Your task to perform on an android device: Go to sound settings Image 0: 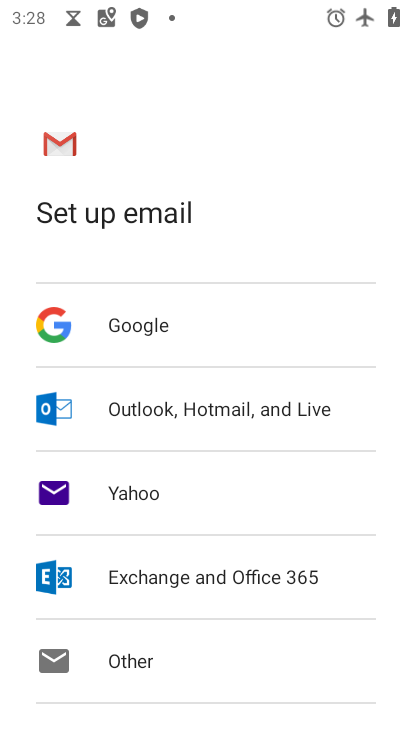
Step 0: press home button
Your task to perform on an android device: Go to sound settings Image 1: 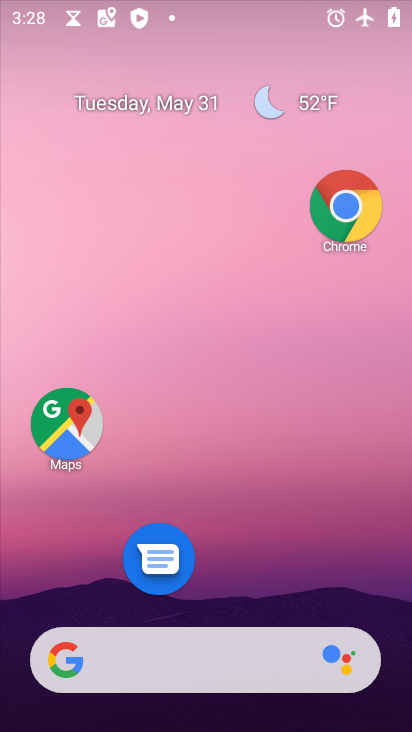
Step 1: drag from (29, 600) to (222, 117)
Your task to perform on an android device: Go to sound settings Image 2: 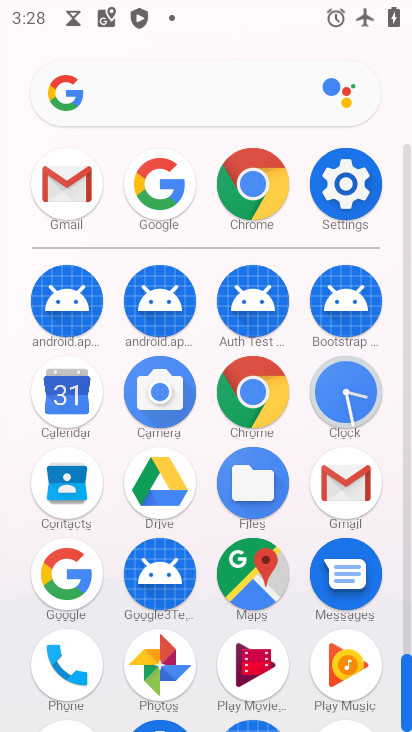
Step 2: click (366, 184)
Your task to perform on an android device: Go to sound settings Image 3: 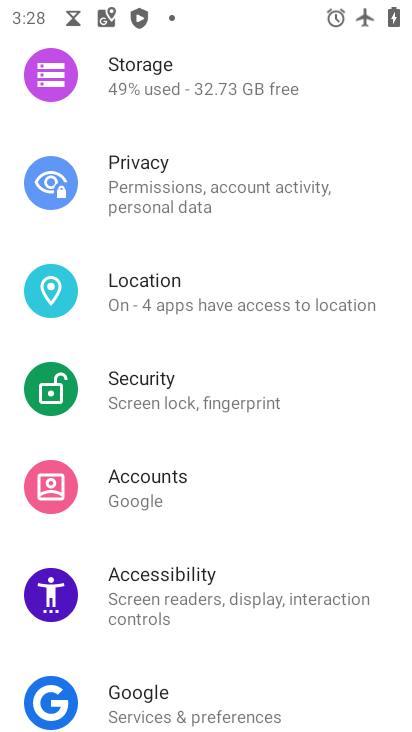
Step 3: drag from (172, 161) to (88, 722)
Your task to perform on an android device: Go to sound settings Image 4: 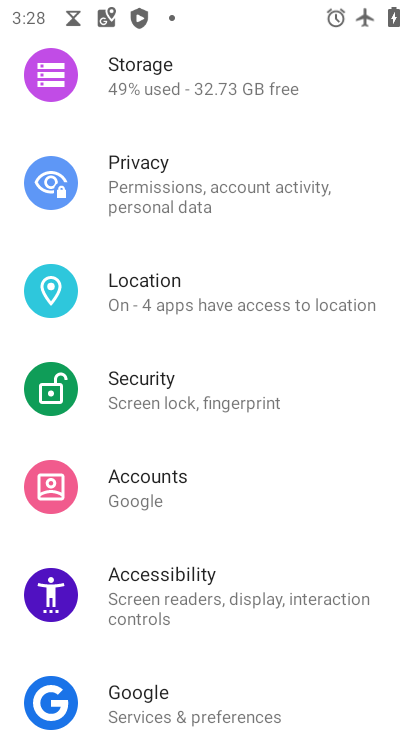
Step 4: drag from (34, 189) to (199, 662)
Your task to perform on an android device: Go to sound settings Image 5: 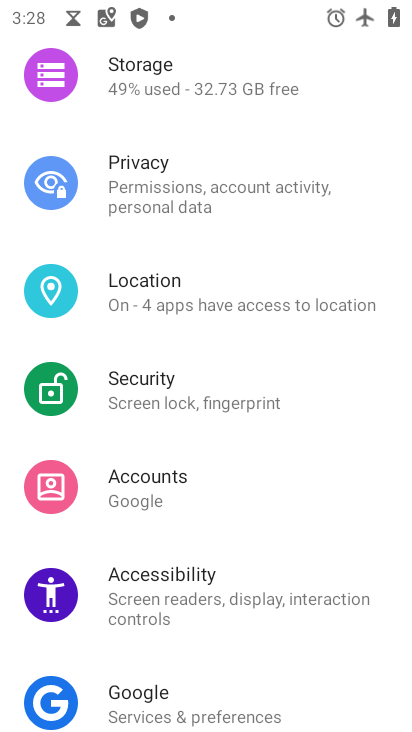
Step 5: drag from (109, 149) to (210, 698)
Your task to perform on an android device: Go to sound settings Image 6: 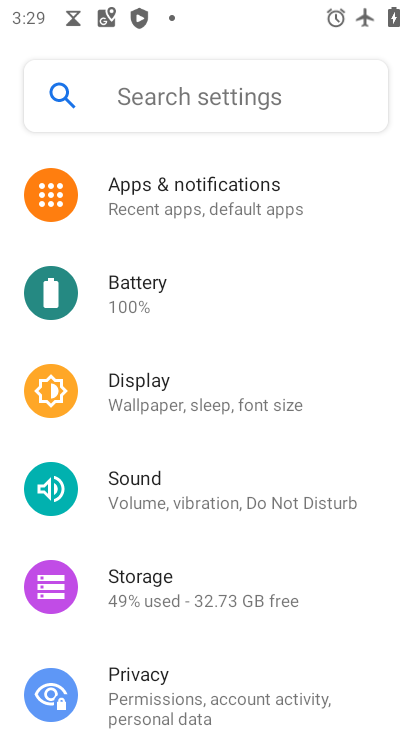
Step 6: drag from (230, 176) to (240, 585)
Your task to perform on an android device: Go to sound settings Image 7: 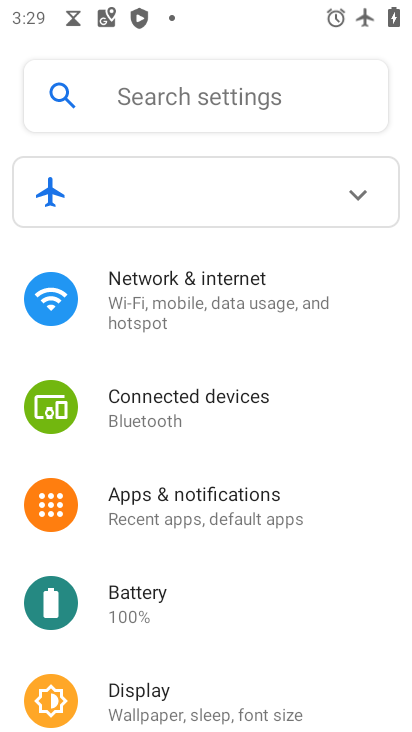
Step 7: click (231, 288)
Your task to perform on an android device: Go to sound settings Image 8: 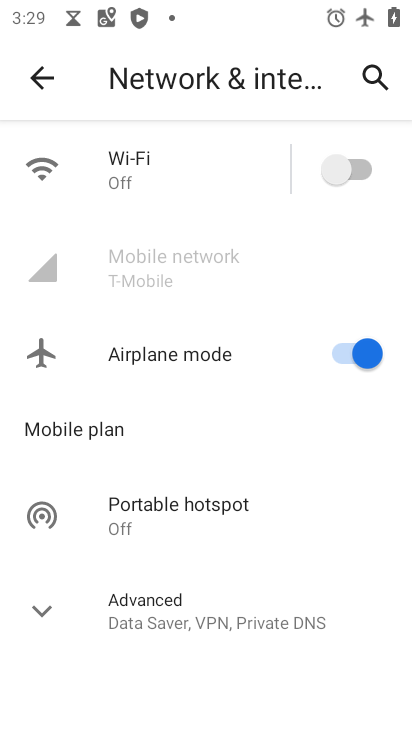
Step 8: press back button
Your task to perform on an android device: Go to sound settings Image 9: 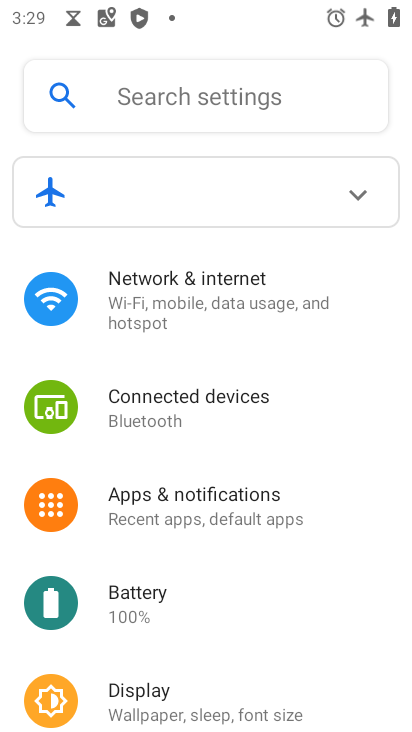
Step 9: drag from (21, 573) to (286, 115)
Your task to perform on an android device: Go to sound settings Image 10: 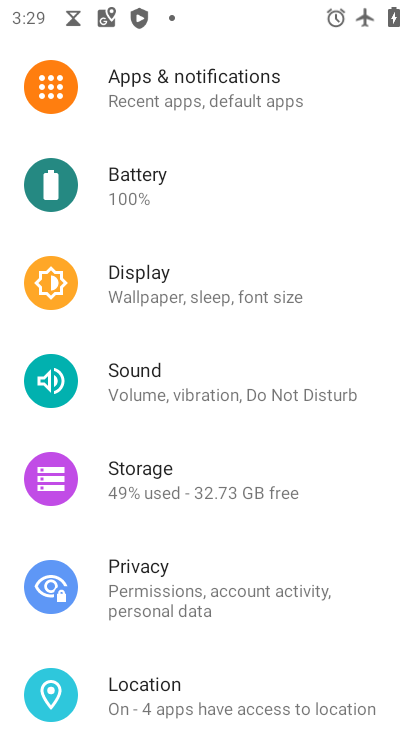
Step 10: click (165, 379)
Your task to perform on an android device: Go to sound settings Image 11: 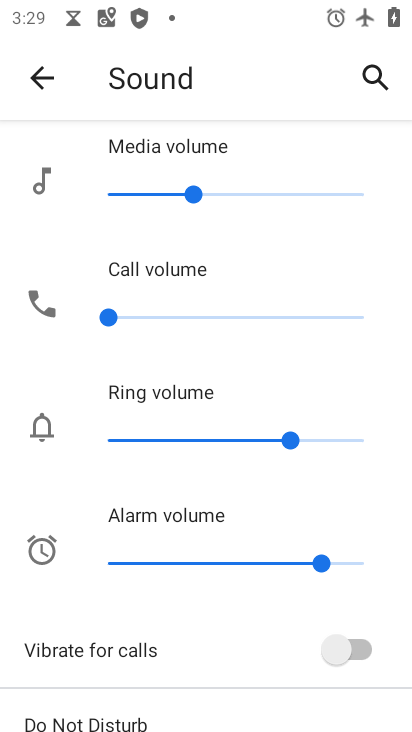
Step 11: task complete